Your task to perform on an android device: Open Yahoo.com Image 0: 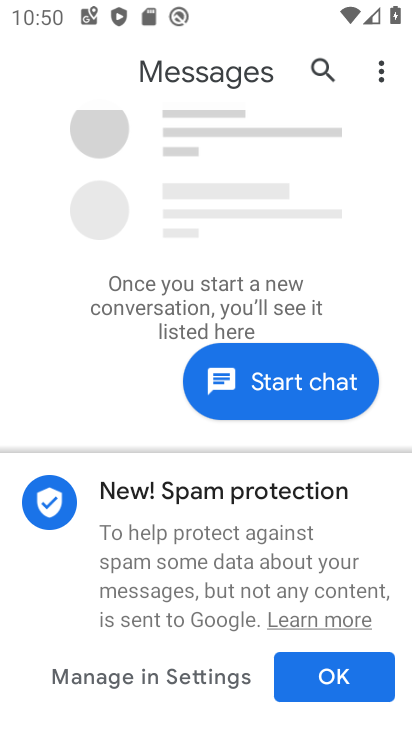
Step 0: press home button
Your task to perform on an android device: Open Yahoo.com Image 1: 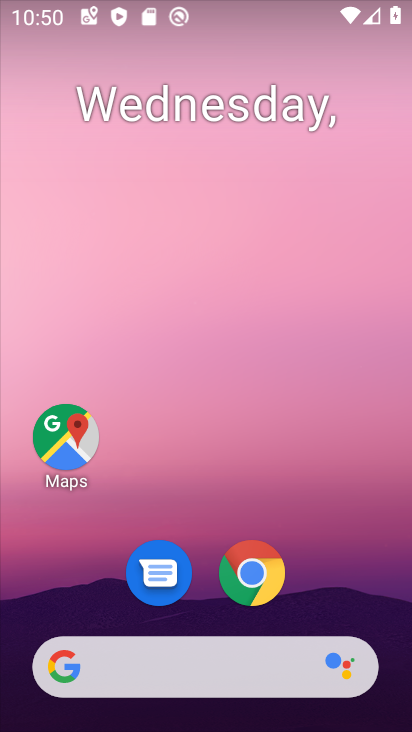
Step 1: click (247, 574)
Your task to perform on an android device: Open Yahoo.com Image 2: 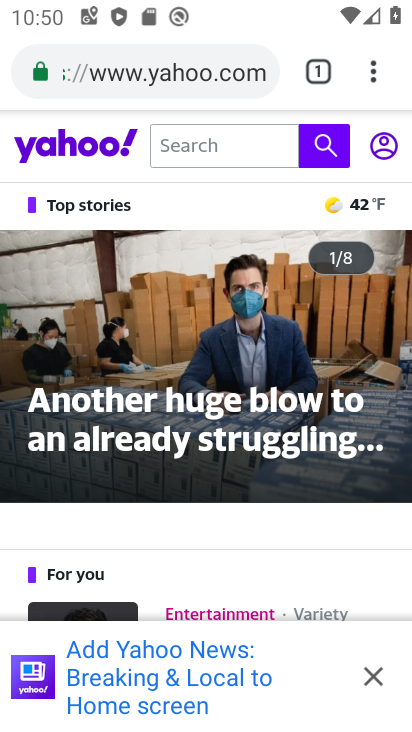
Step 2: task complete